Your task to perform on an android device: Turn off the flashlight Image 0: 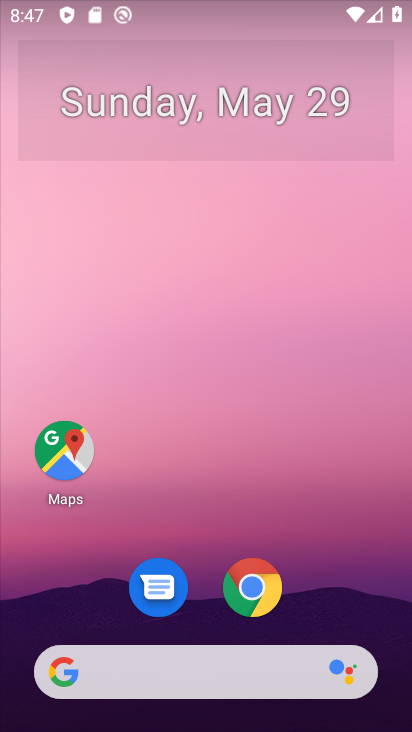
Step 0: drag from (204, 594) to (283, 96)
Your task to perform on an android device: Turn off the flashlight Image 1: 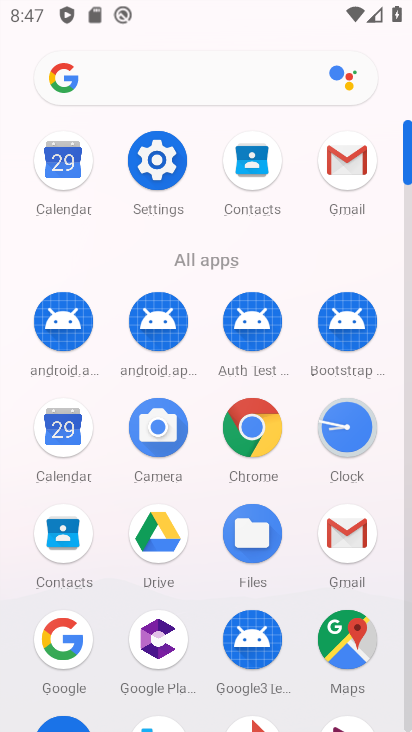
Step 1: click (164, 154)
Your task to perform on an android device: Turn off the flashlight Image 2: 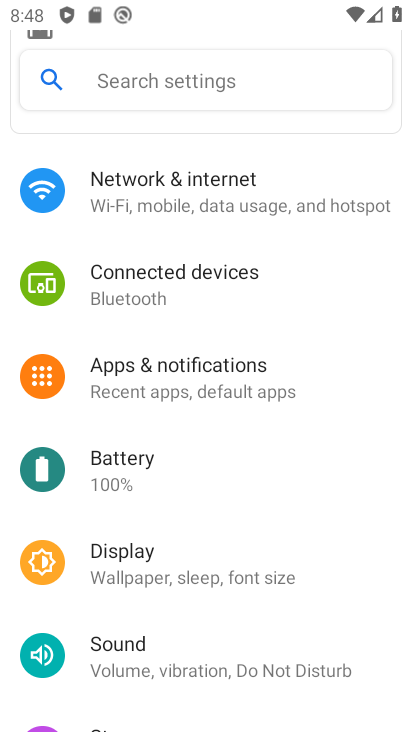
Step 2: click (236, 85)
Your task to perform on an android device: Turn off the flashlight Image 3: 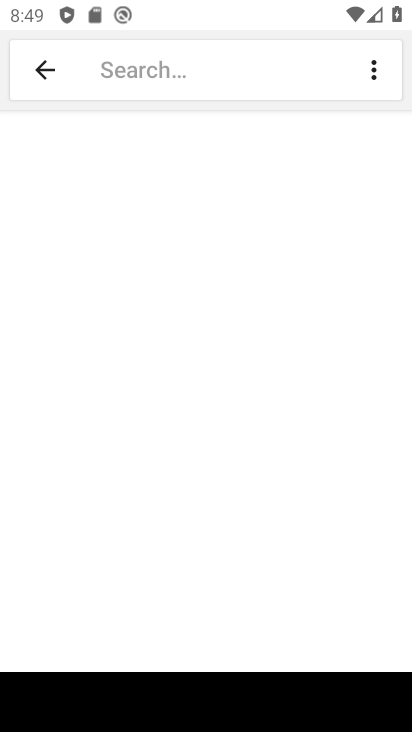
Step 3: type "flashlight"
Your task to perform on an android device: Turn off the flashlight Image 4: 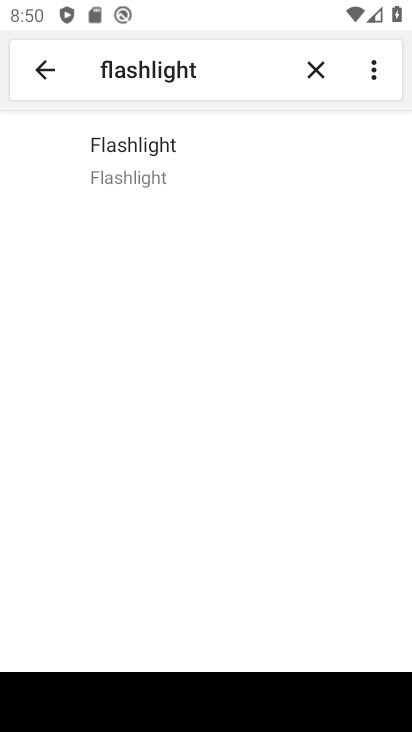
Step 4: click (142, 160)
Your task to perform on an android device: Turn off the flashlight Image 5: 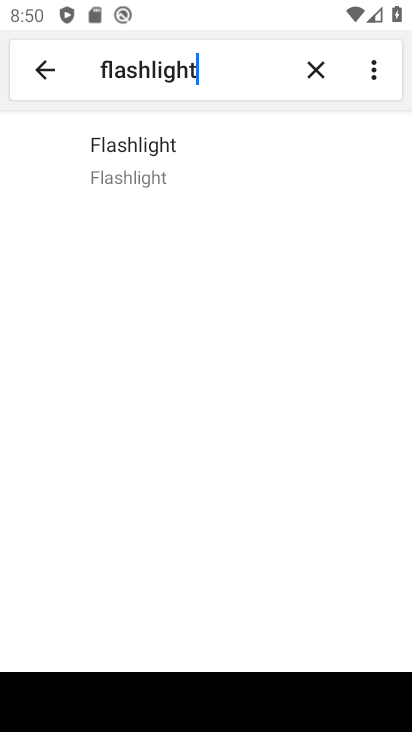
Step 5: task complete